Your task to perform on an android device: Open wifi settings Image 0: 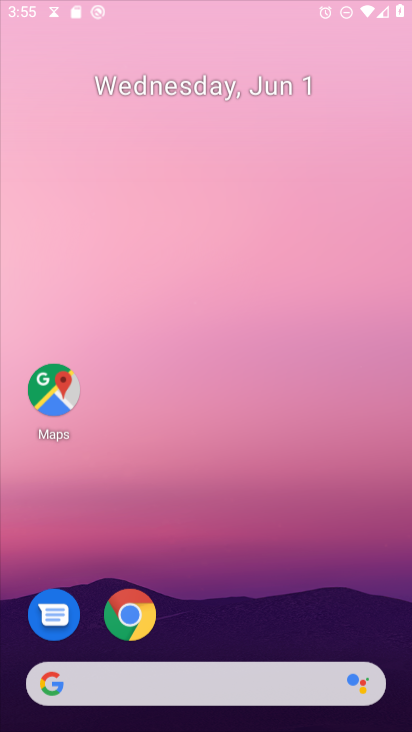
Step 0: press home button
Your task to perform on an android device: Open wifi settings Image 1: 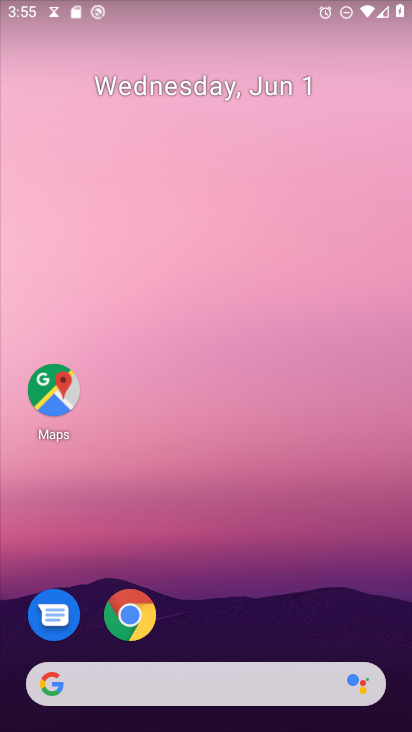
Step 1: drag from (235, 601) to (235, 564)
Your task to perform on an android device: Open wifi settings Image 2: 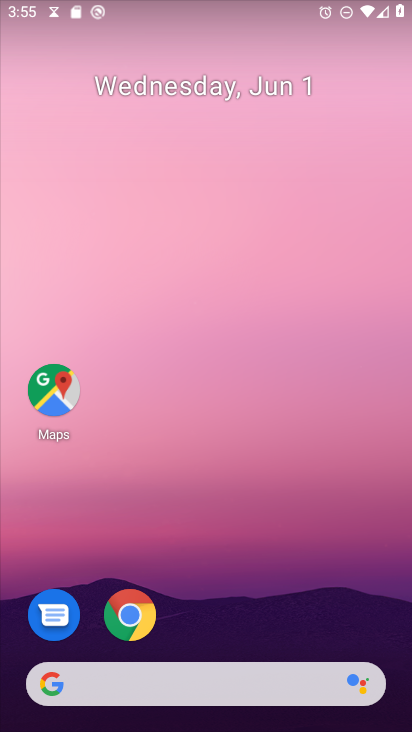
Step 2: drag from (264, 211) to (270, 147)
Your task to perform on an android device: Open wifi settings Image 3: 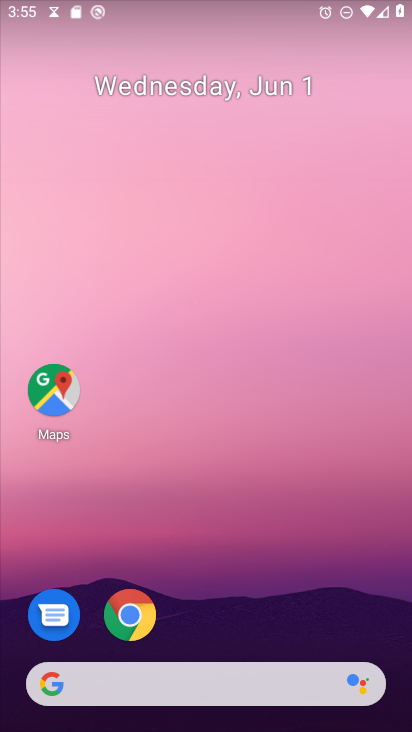
Step 3: drag from (224, 640) to (235, 48)
Your task to perform on an android device: Open wifi settings Image 4: 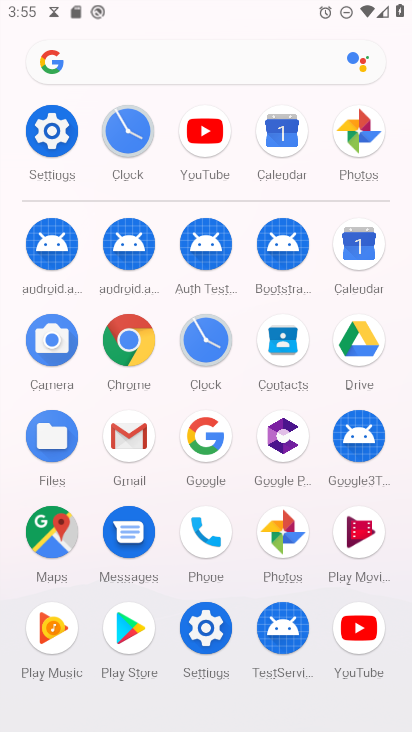
Step 4: click (48, 124)
Your task to perform on an android device: Open wifi settings Image 5: 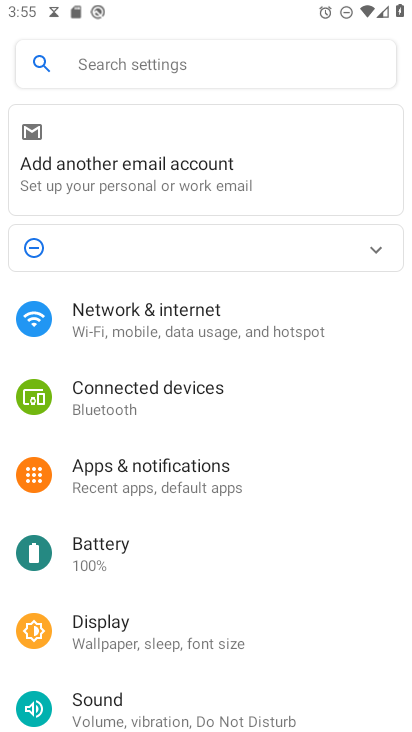
Step 5: click (190, 316)
Your task to perform on an android device: Open wifi settings Image 6: 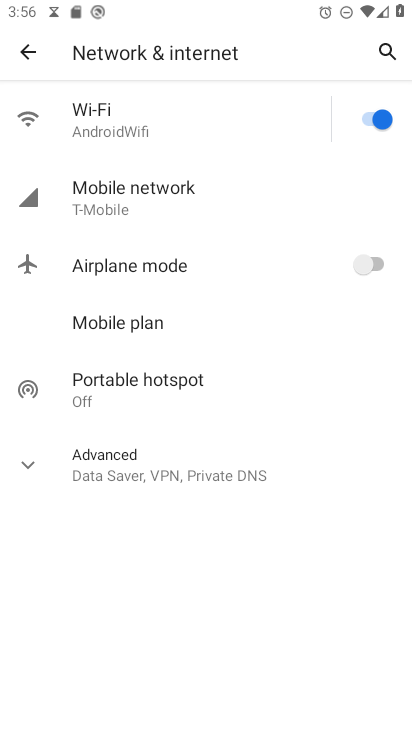
Step 6: click (193, 116)
Your task to perform on an android device: Open wifi settings Image 7: 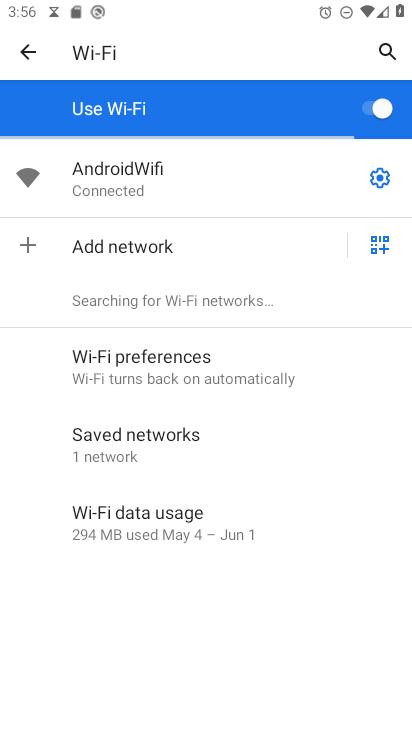
Step 7: task complete